Your task to perform on an android device: Search for Mexican restaurants on Maps Image 0: 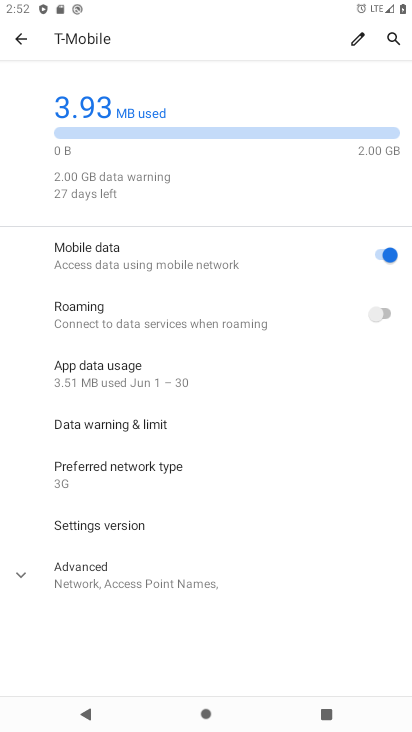
Step 0: press home button
Your task to perform on an android device: Search for Mexican restaurants on Maps Image 1: 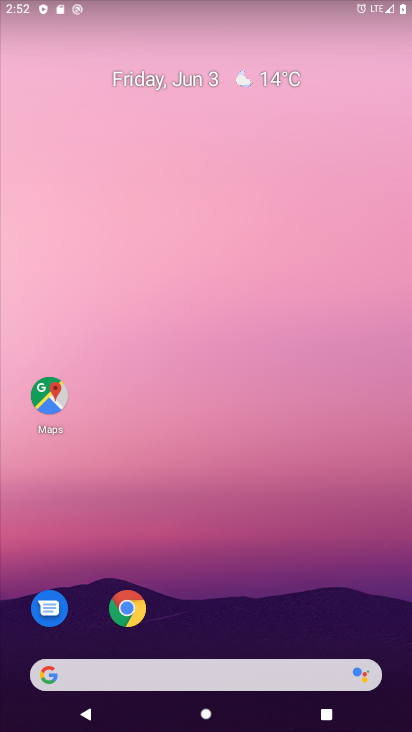
Step 1: click (51, 367)
Your task to perform on an android device: Search for Mexican restaurants on Maps Image 2: 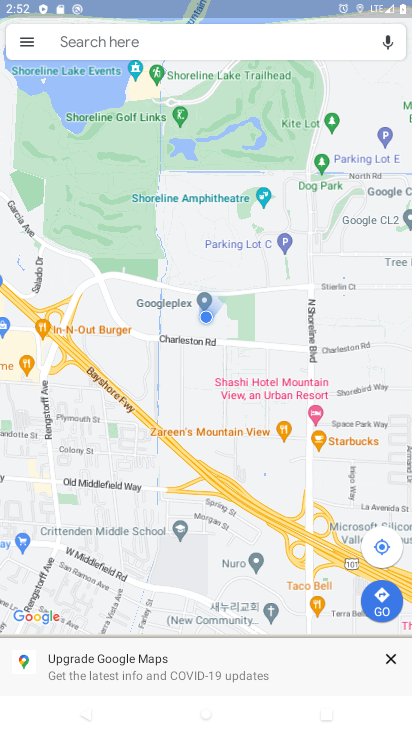
Step 2: click (178, 37)
Your task to perform on an android device: Search for Mexican restaurants on Maps Image 3: 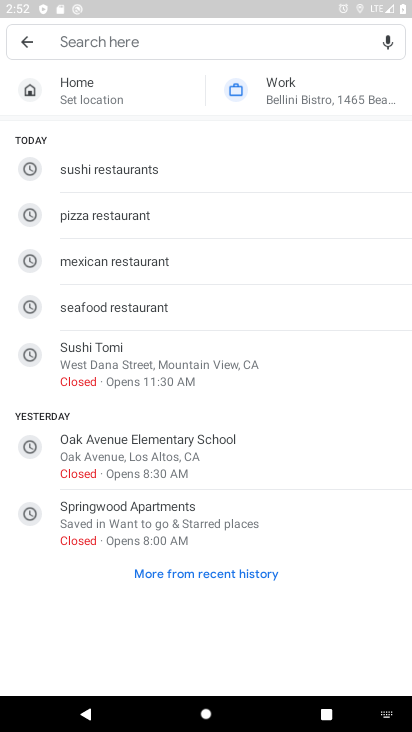
Step 3: click (99, 276)
Your task to perform on an android device: Search for Mexican restaurants on Maps Image 4: 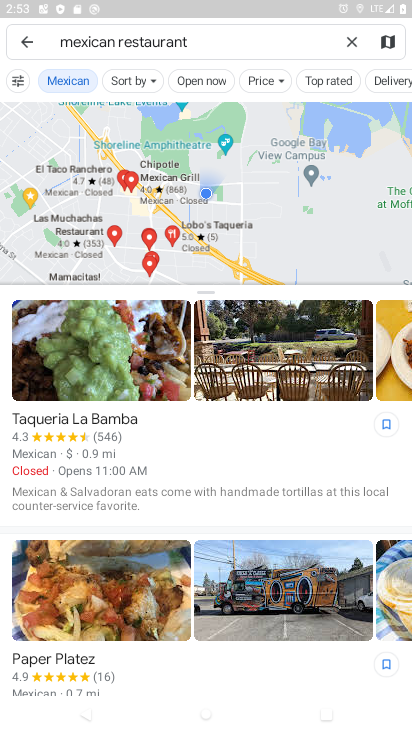
Step 4: task complete